Your task to perform on an android device: What's the weather today? Image 0: 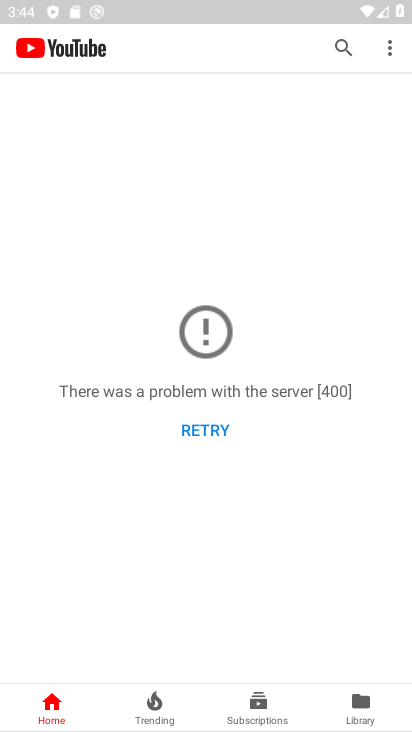
Step 0: press home button
Your task to perform on an android device: What's the weather today? Image 1: 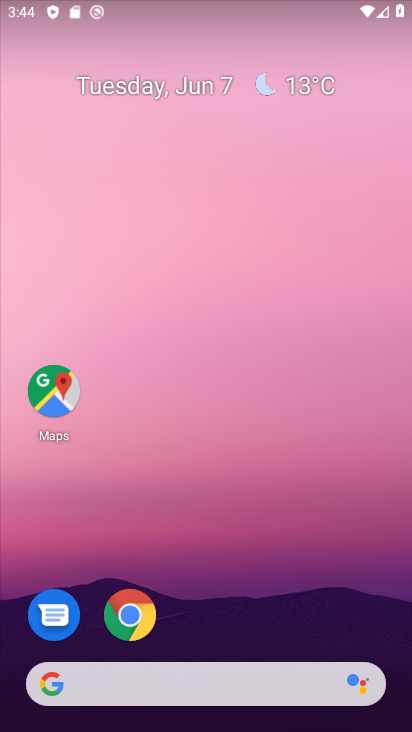
Step 1: drag from (226, 689) to (274, 67)
Your task to perform on an android device: What's the weather today? Image 2: 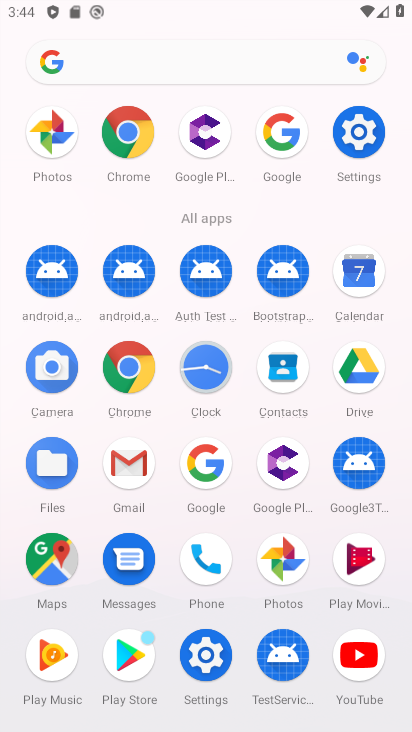
Step 2: click (199, 460)
Your task to perform on an android device: What's the weather today? Image 3: 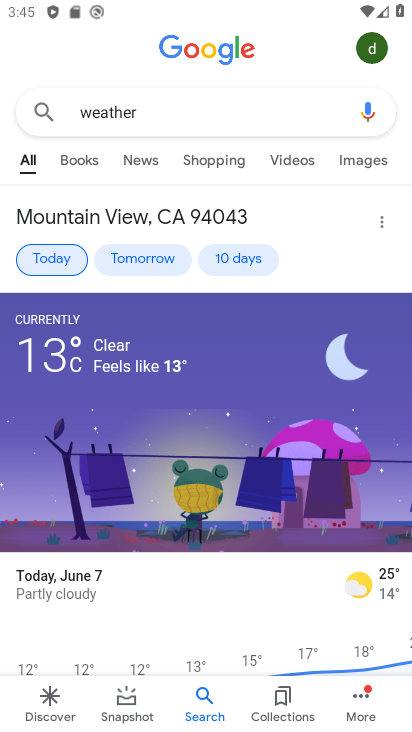
Step 3: click (60, 260)
Your task to perform on an android device: What's the weather today? Image 4: 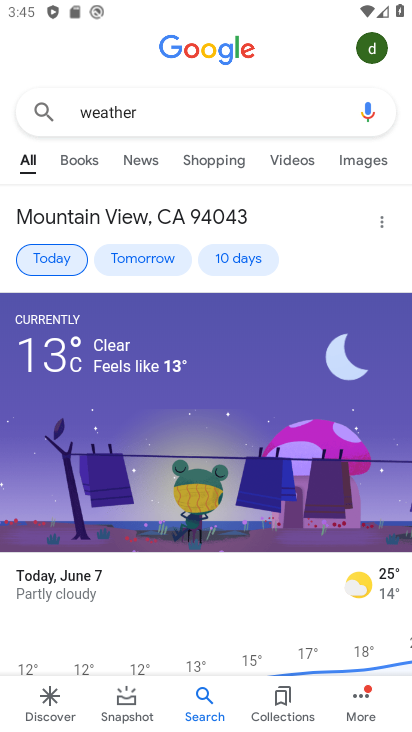
Step 4: click (60, 260)
Your task to perform on an android device: What's the weather today? Image 5: 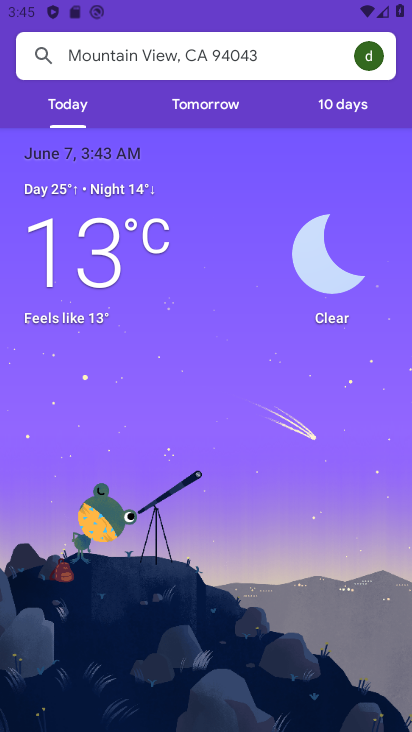
Step 5: task complete